Your task to perform on an android device: turn on location history Image 0: 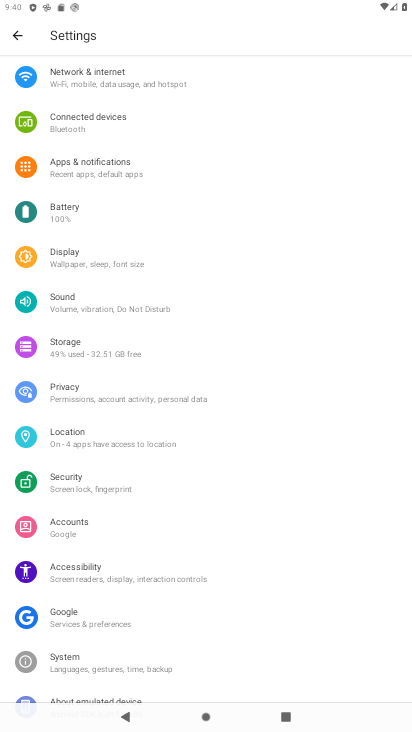
Step 0: click (96, 440)
Your task to perform on an android device: turn on location history Image 1: 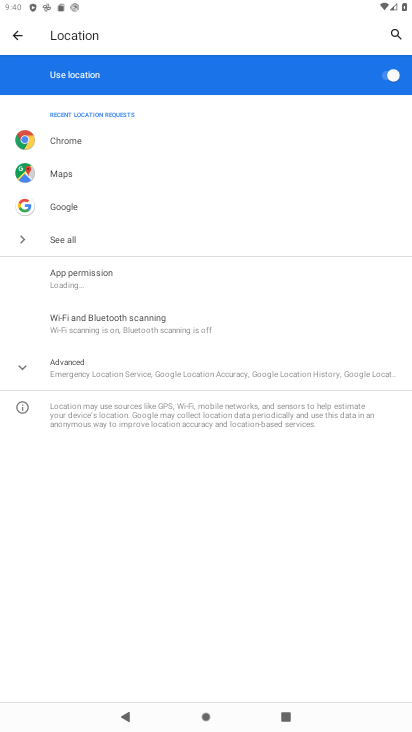
Step 1: click (29, 367)
Your task to perform on an android device: turn on location history Image 2: 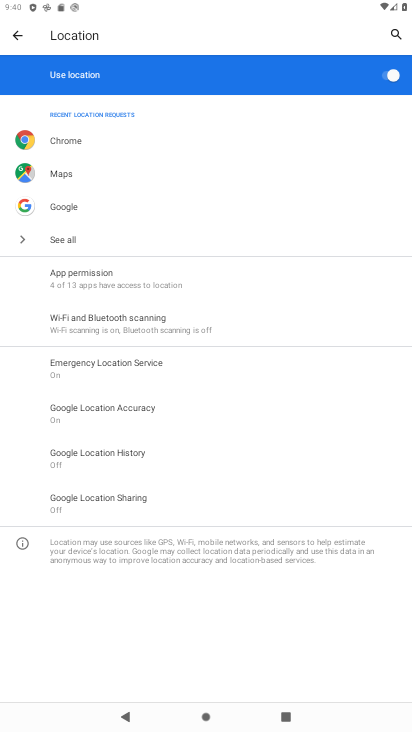
Step 2: click (62, 454)
Your task to perform on an android device: turn on location history Image 3: 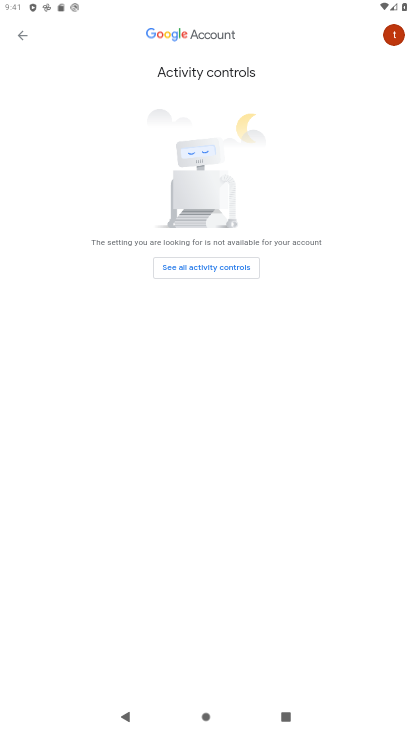
Step 3: press home button
Your task to perform on an android device: turn on location history Image 4: 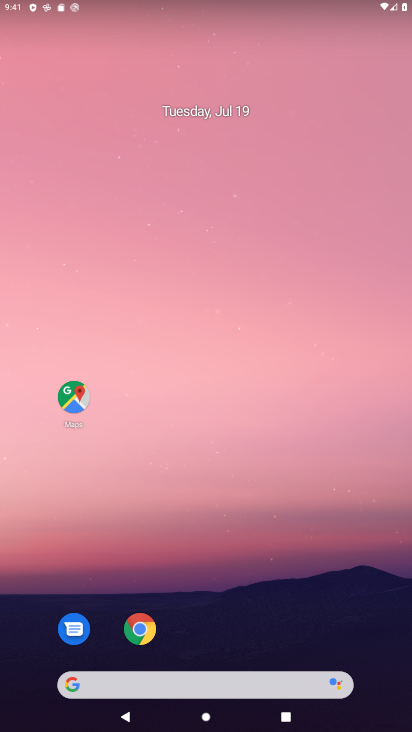
Step 4: drag from (294, 576) to (299, 208)
Your task to perform on an android device: turn on location history Image 5: 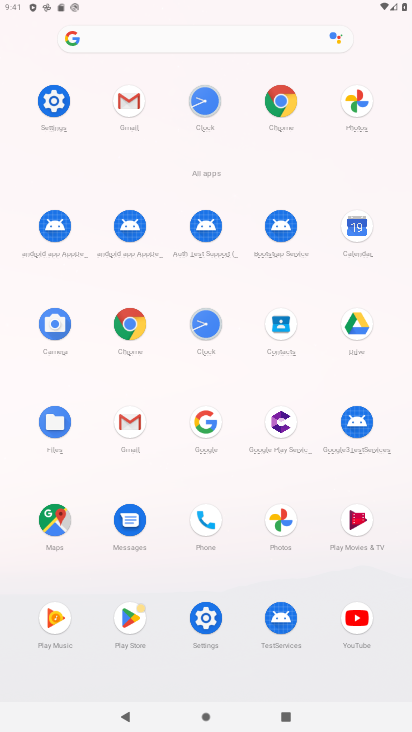
Step 5: click (49, 100)
Your task to perform on an android device: turn on location history Image 6: 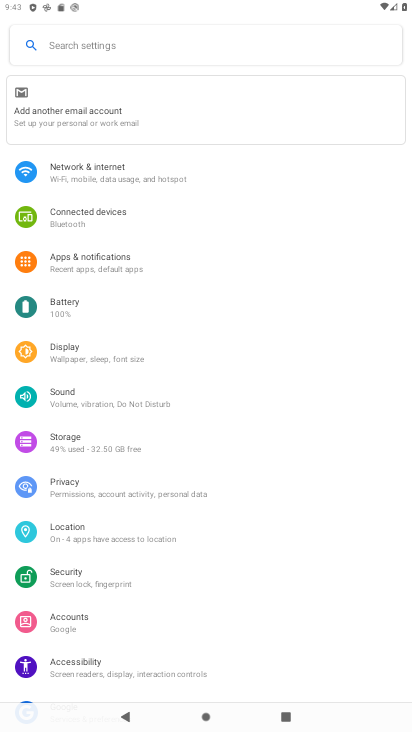
Step 6: click (104, 262)
Your task to perform on an android device: turn on location history Image 7: 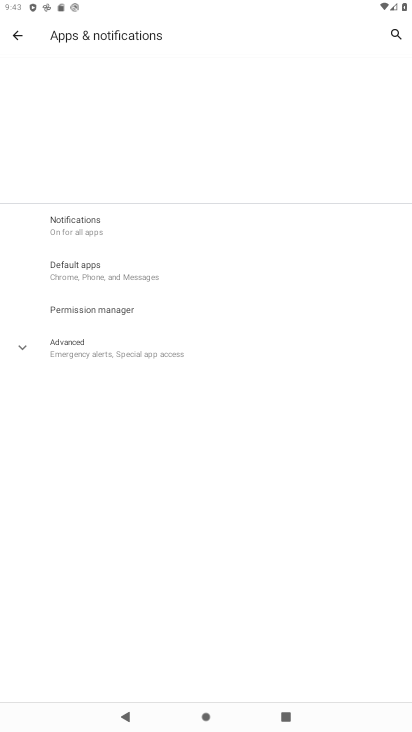
Step 7: click (69, 225)
Your task to perform on an android device: turn on location history Image 8: 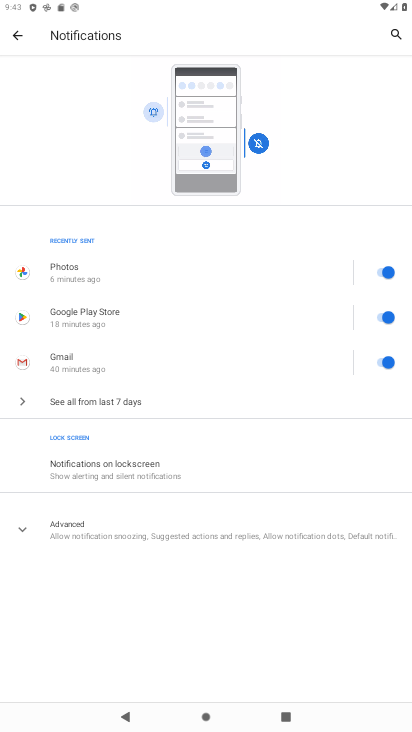
Step 8: click (157, 109)
Your task to perform on an android device: turn on location history Image 9: 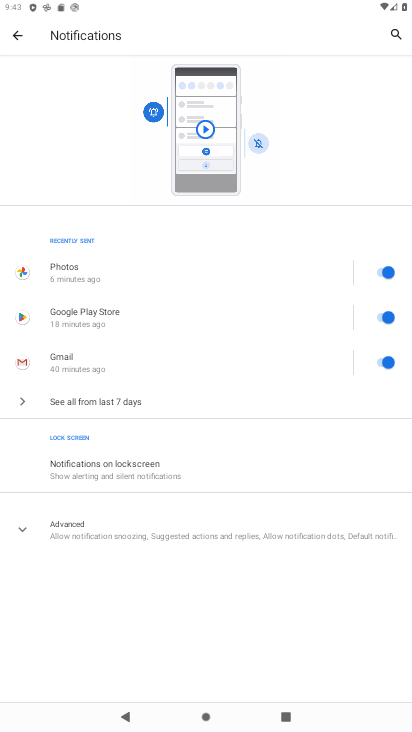
Step 9: task complete